Your task to perform on an android device: Go to eBay Image 0: 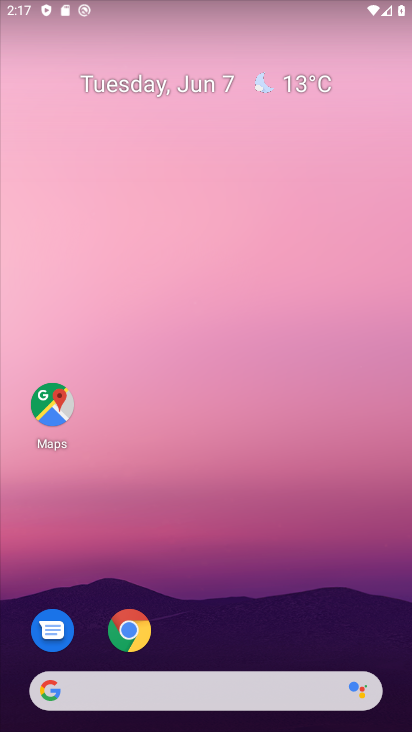
Step 0: click (126, 622)
Your task to perform on an android device: Go to eBay Image 1: 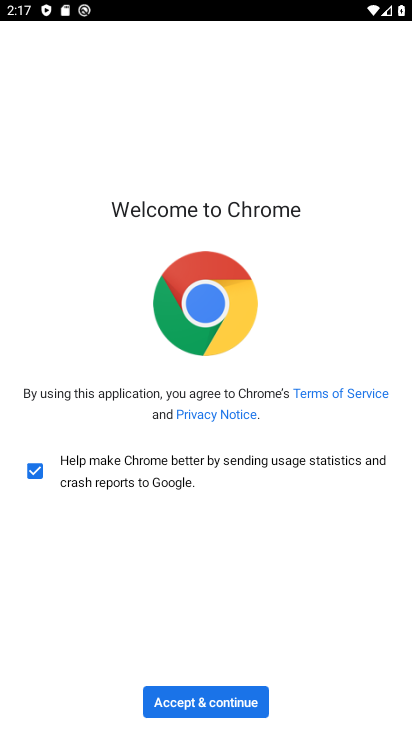
Step 1: click (166, 697)
Your task to perform on an android device: Go to eBay Image 2: 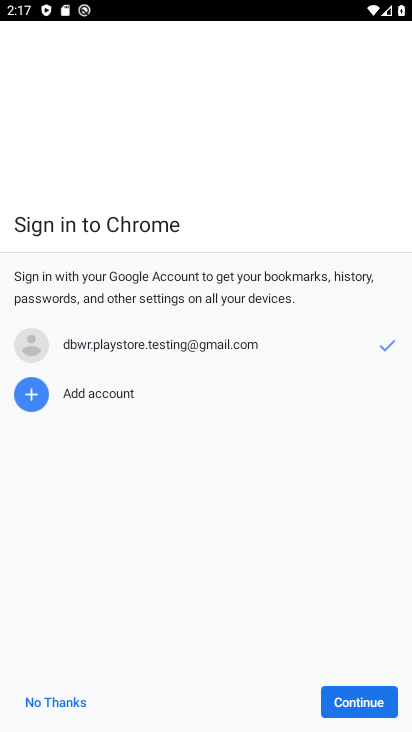
Step 2: click (359, 708)
Your task to perform on an android device: Go to eBay Image 3: 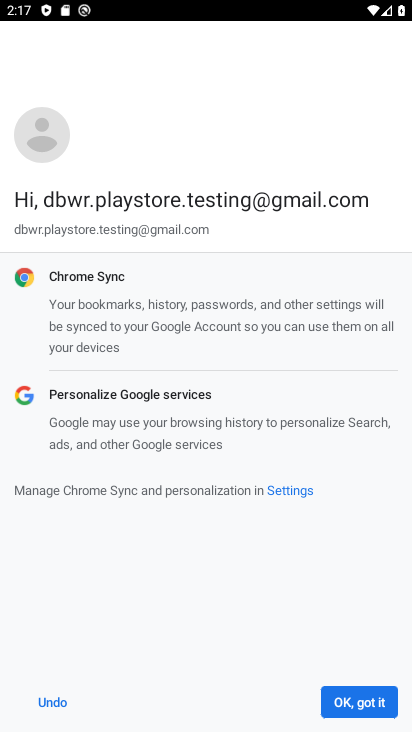
Step 3: click (359, 708)
Your task to perform on an android device: Go to eBay Image 4: 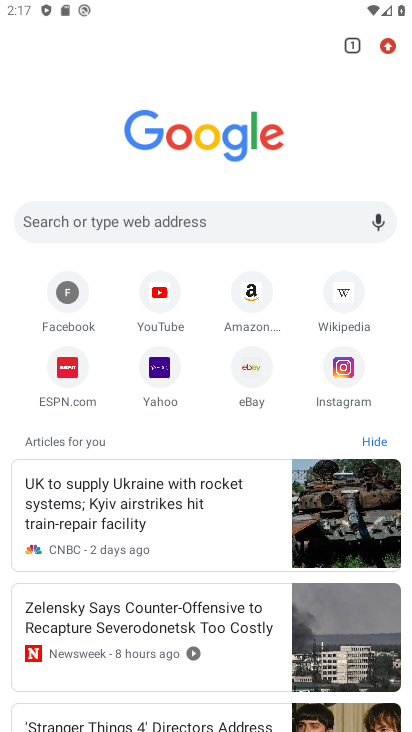
Step 4: click (250, 366)
Your task to perform on an android device: Go to eBay Image 5: 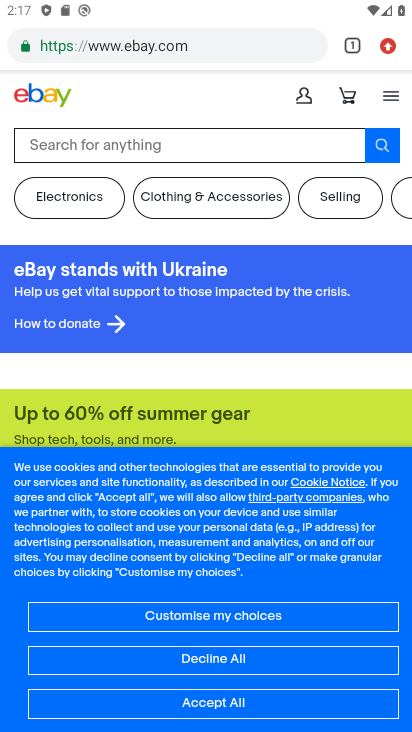
Step 5: task complete